Your task to perform on an android device: snooze an email in the gmail app Image 0: 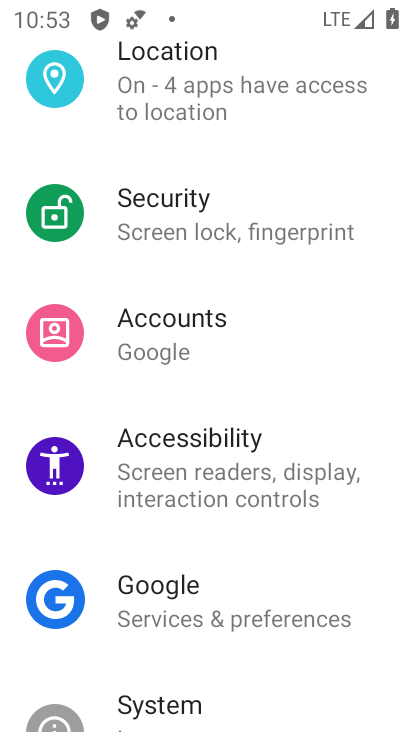
Step 0: press home button
Your task to perform on an android device: snooze an email in the gmail app Image 1: 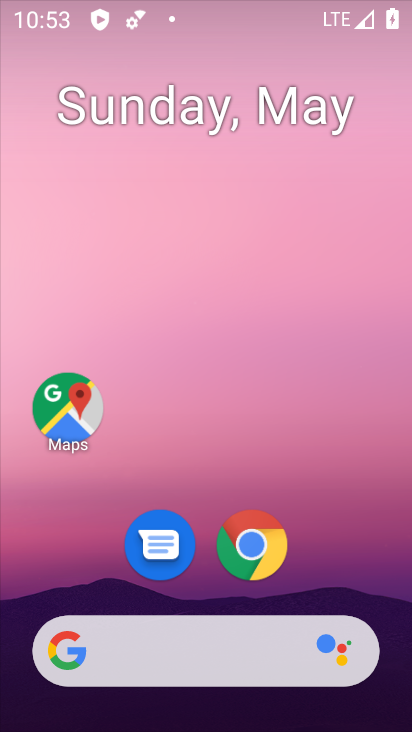
Step 1: drag from (382, 667) to (306, 125)
Your task to perform on an android device: snooze an email in the gmail app Image 2: 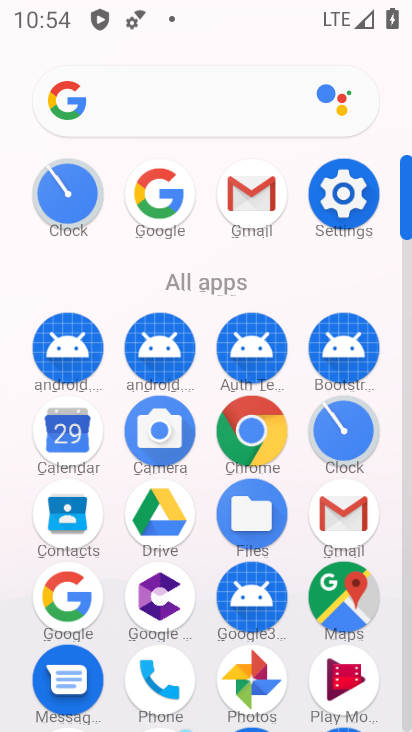
Step 2: click (341, 521)
Your task to perform on an android device: snooze an email in the gmail app Image 3: 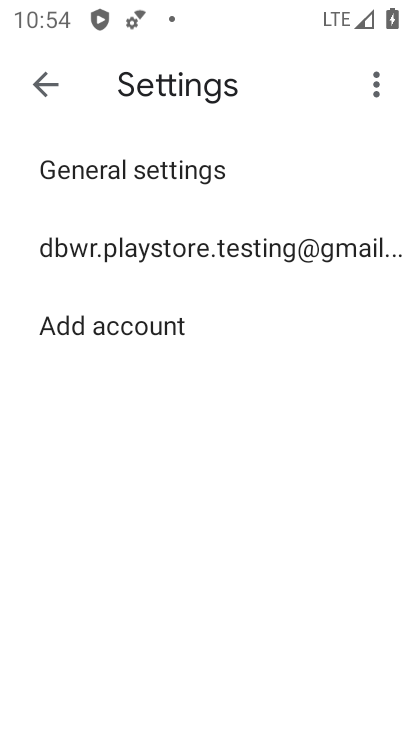
Step 3: press back button
Your task to perform on an android device: snooze an email in the gmail app Image 4: 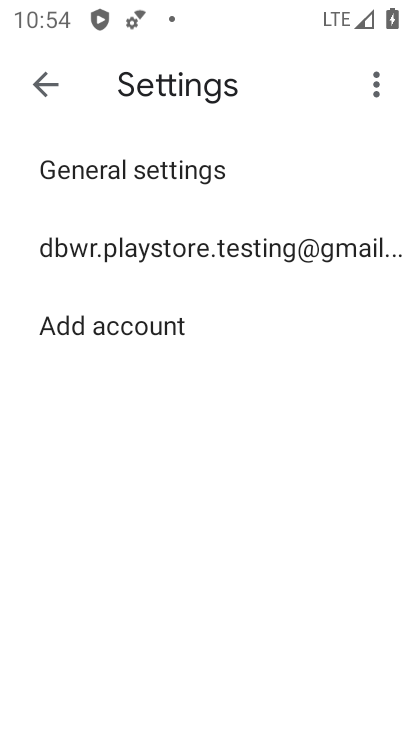
Step 4: press back button
Your task to perform on an android device: snooze an email in the gmail app Image 5: 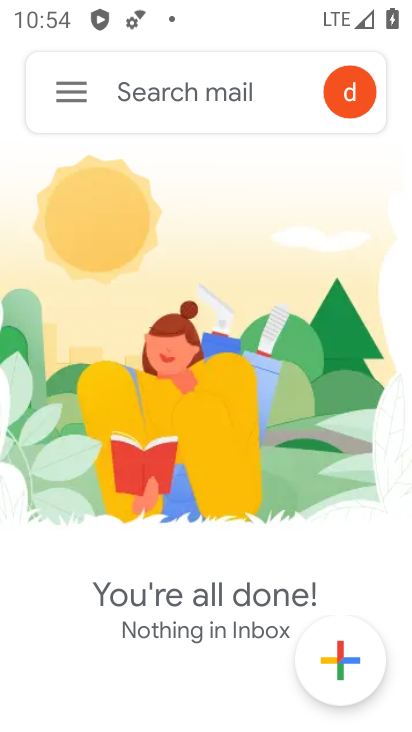
Step 5: click (70, 88)
Your task to perform on an android device: snooze an email in the gmail app Image 6: 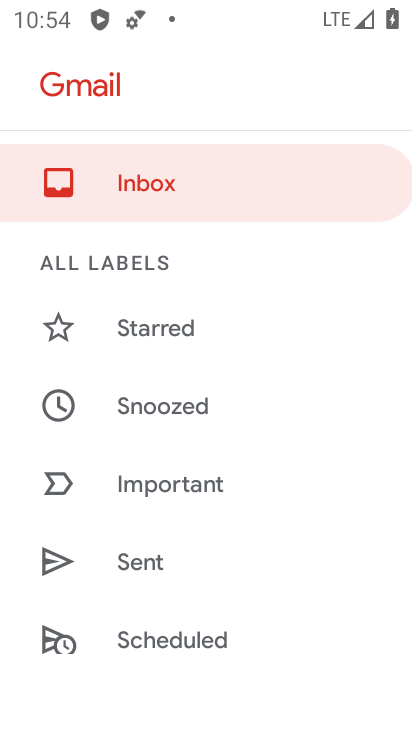
Step 6: click (208, 411)
Your task to perform on an android device: snooze an email in the gmail app Image 7: 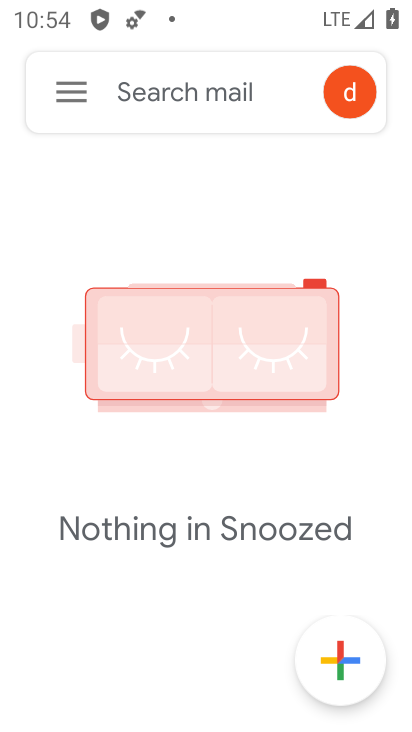
Step 7: task complete